Your task to perform on an android device: turn on data saver in the chrome app Image 0: 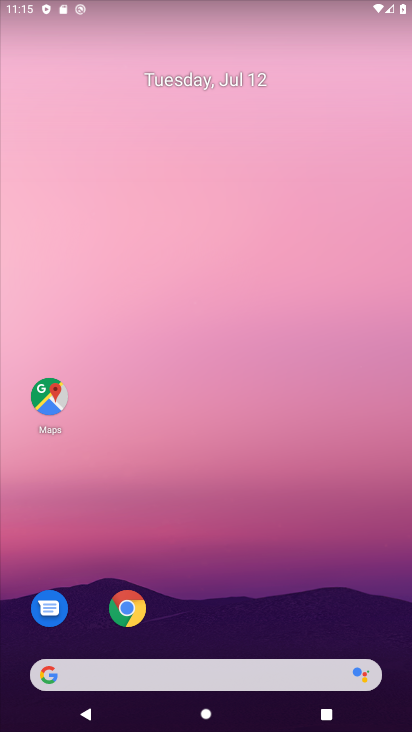
Step 0: click (132, 625)
Your task to perform on an android device: turn on data saver in the chrome app Image 1: 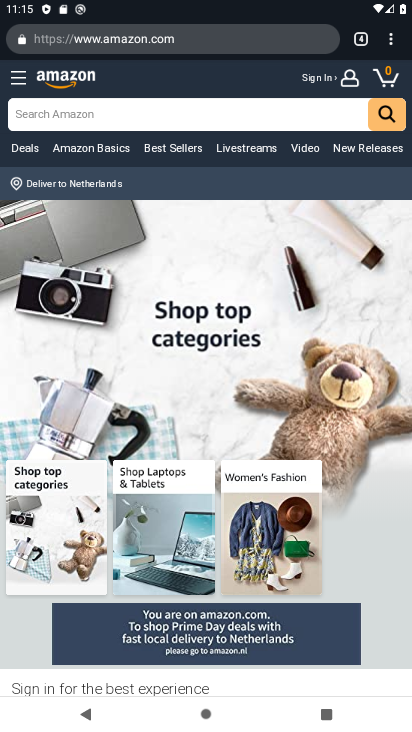
Step 1: click (402, 36)
Your task to perform on an android device: turn on data saver in the chrome app Image 2: 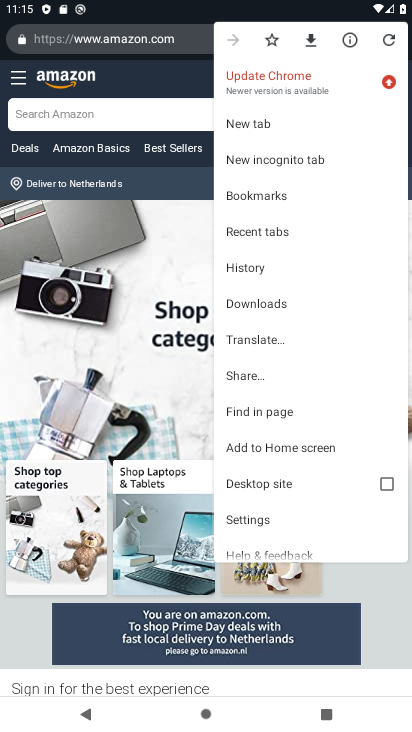
Step 2: click (229, 517)
Your task to perform on an android device: turn on data saver in the chrome app Image 3: 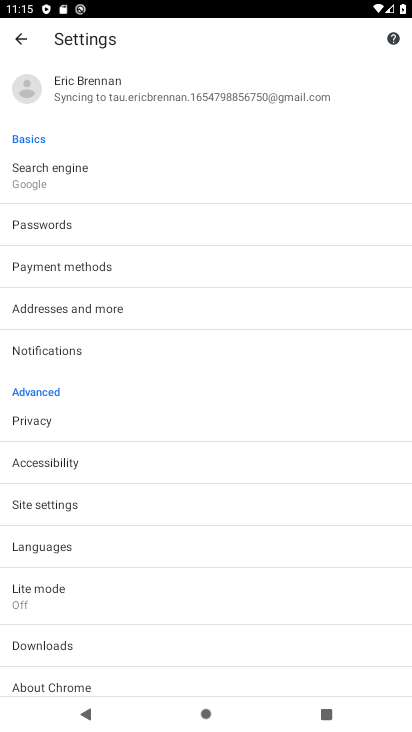
Step 3: click (130, 592)
Your task to perform on an android device: turn on data saver in the chrome app Image 4: 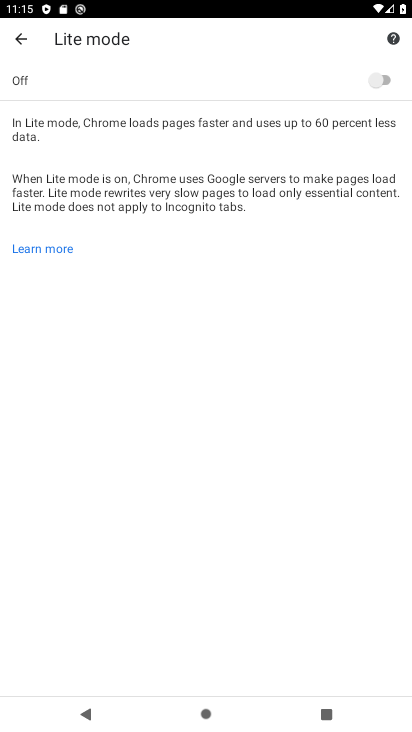
Step 4: click (384, 80)
Your task to perform on an android device: turn on data saver in the chrome app Image 5: 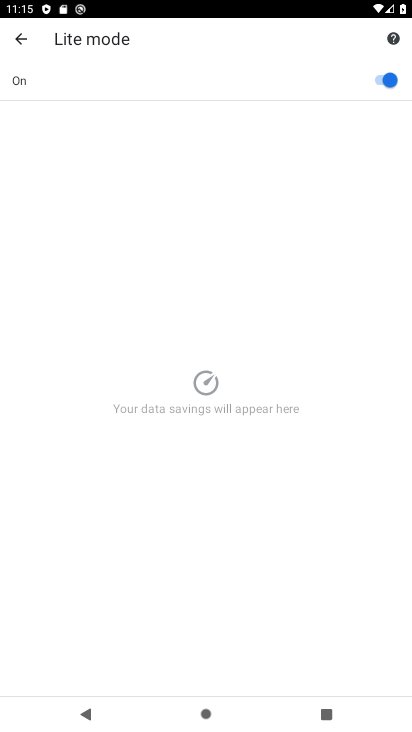
Step 5: task complete